Your task to perform on an android device: clear history in the chrome app Image 0: 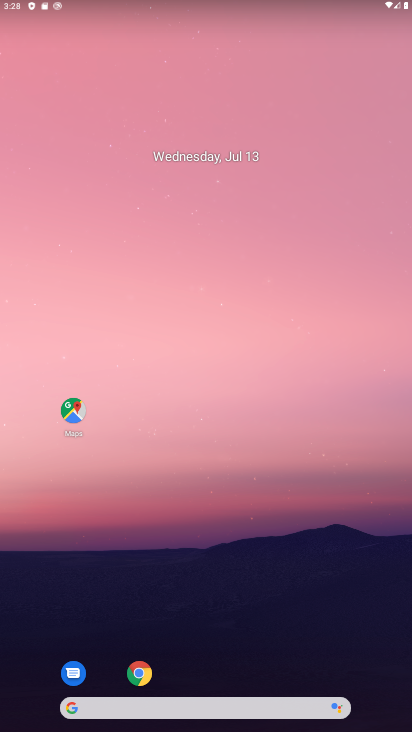
Step 0: click (140, 673)
Your task to perform on an android device: clear history in the chrome app Image 1: 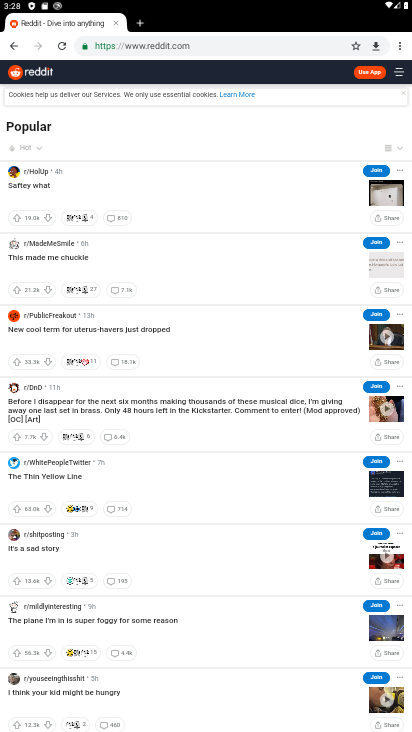
Step 1: click (399, 45)
Your task to perform on an android device: clear history in the chrome app Image 2: 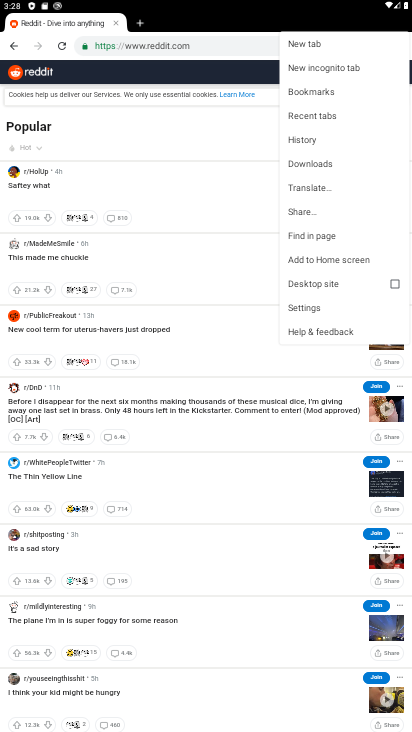
Step 2: click (308, 139)
Your task to perform on an android device: clear history in the chrome app Image 3: 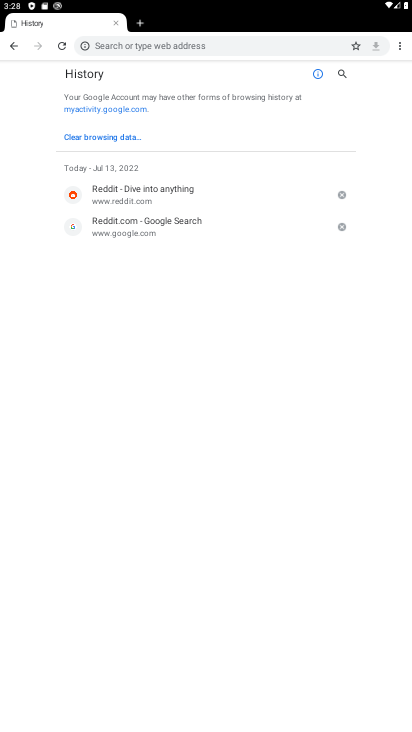
Step 3: click (132, 137)
Your task to perform on an android device: clear history in the chrome app Image 4: 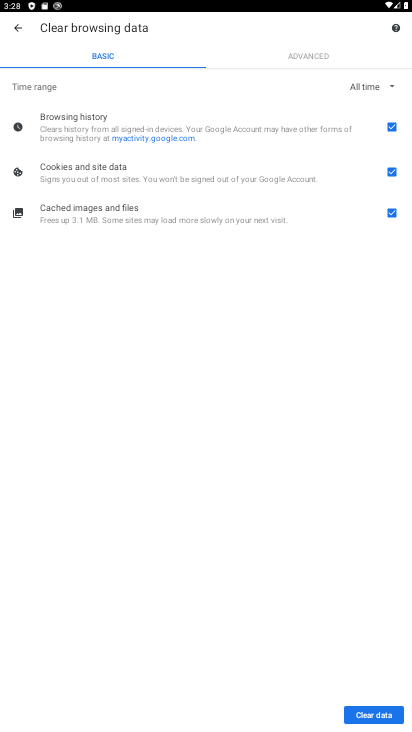
Step 4: click (378, 712)
Your task to perform on an android device: clear history in the chrome app Image 5: 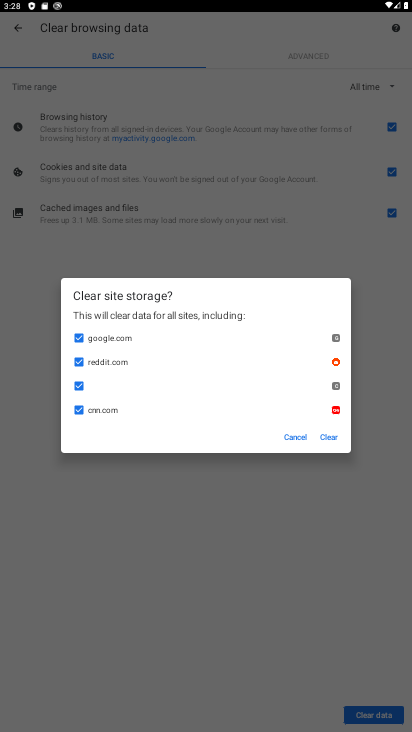
Step 5: click (321, 432)
Your task to perform on an android device: clear history in the chrome app Image 6: 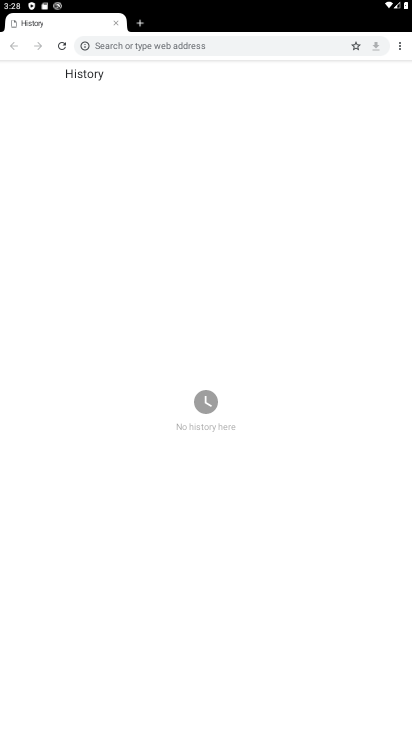
Step 6: task complete